Your task to perform on an android device: check battery use Image 0: 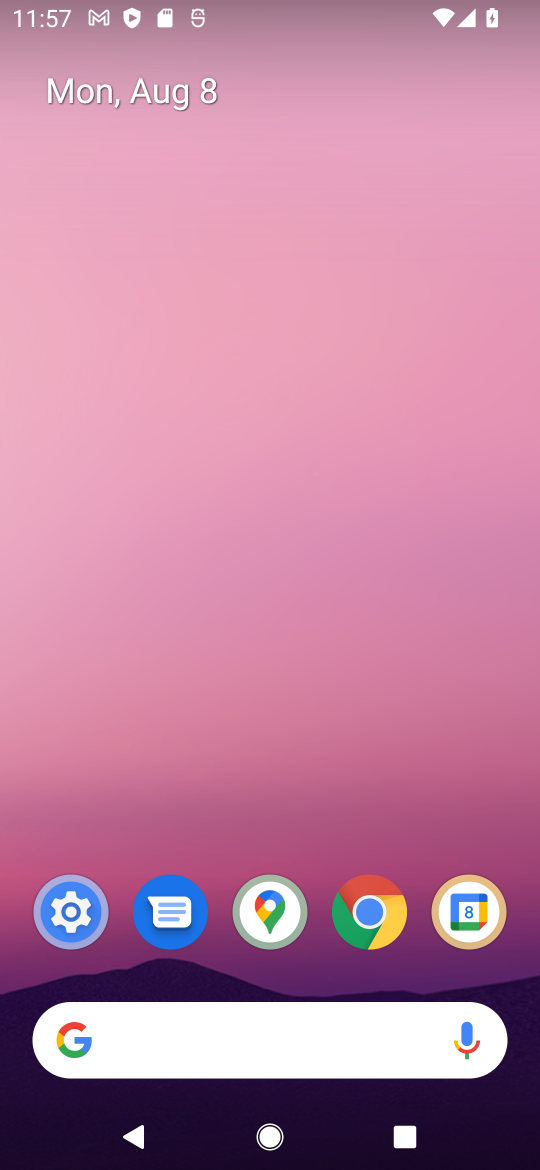
Step 0: click (76, 898)
Your task to perform on an android device: check battery use Image 1: 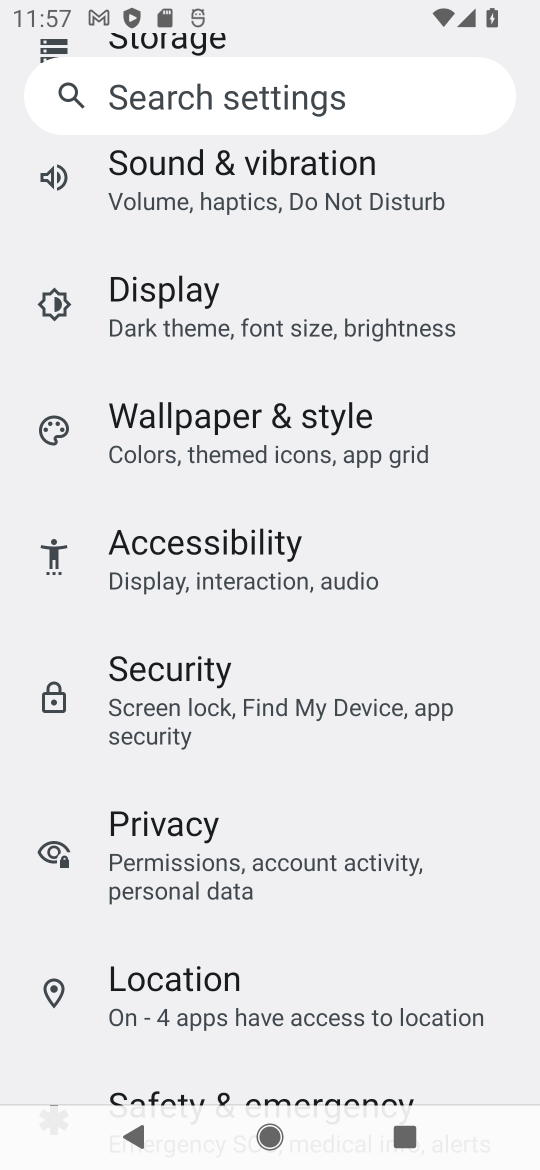
Step 1: drag from (285, 421) to (188, 1030)
Your task to perform on an android device: check battery use Image 2: 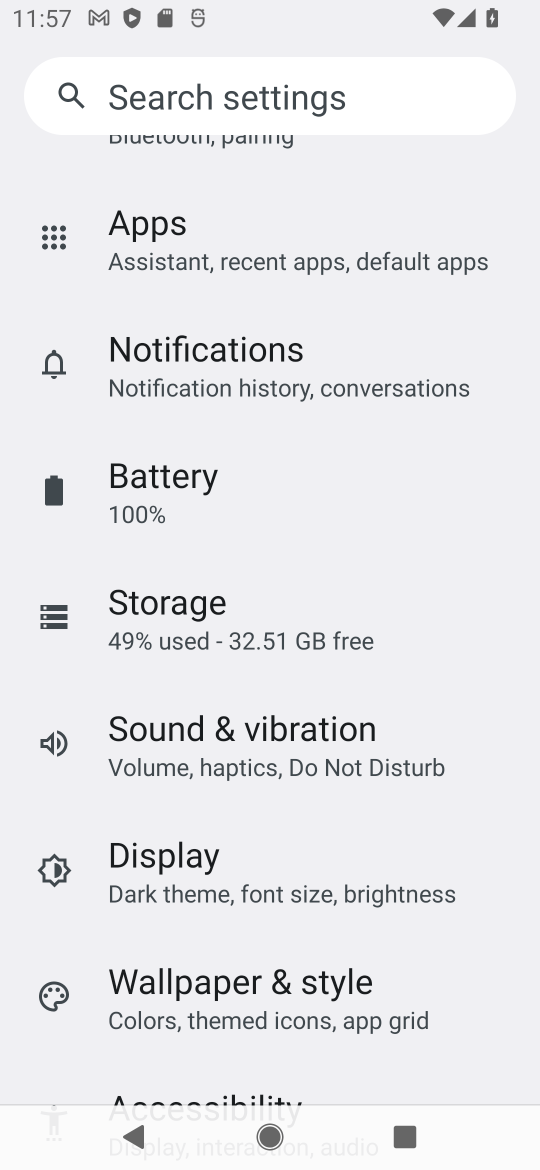
Step 2: click (164, 491)
Your task to perform on an android device: check battery use Image 3: 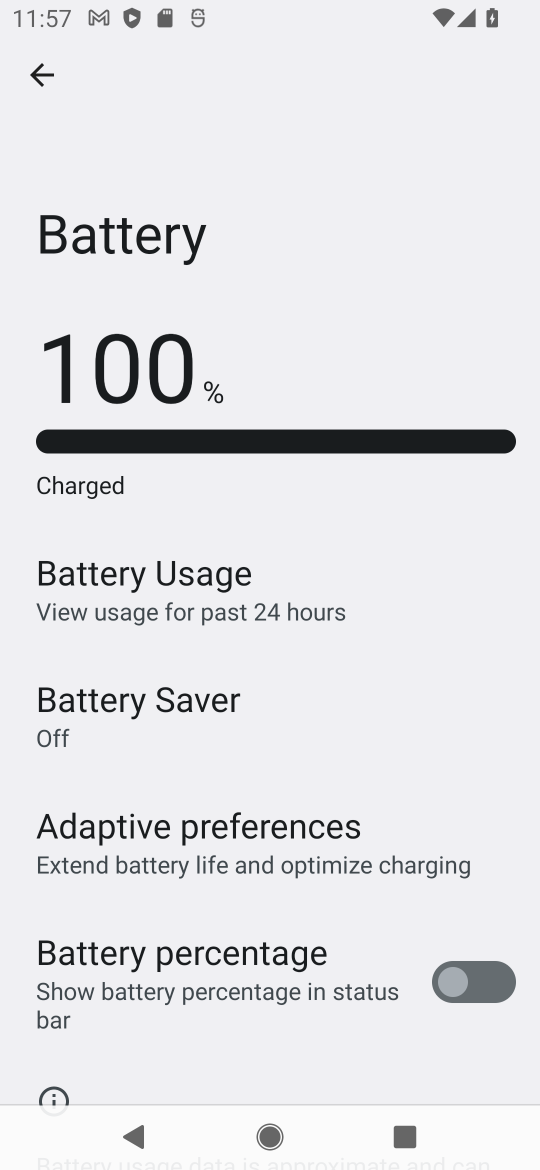
Step 3: click (231, 616)
Your task to perform on an android device: check battery use Image 4: 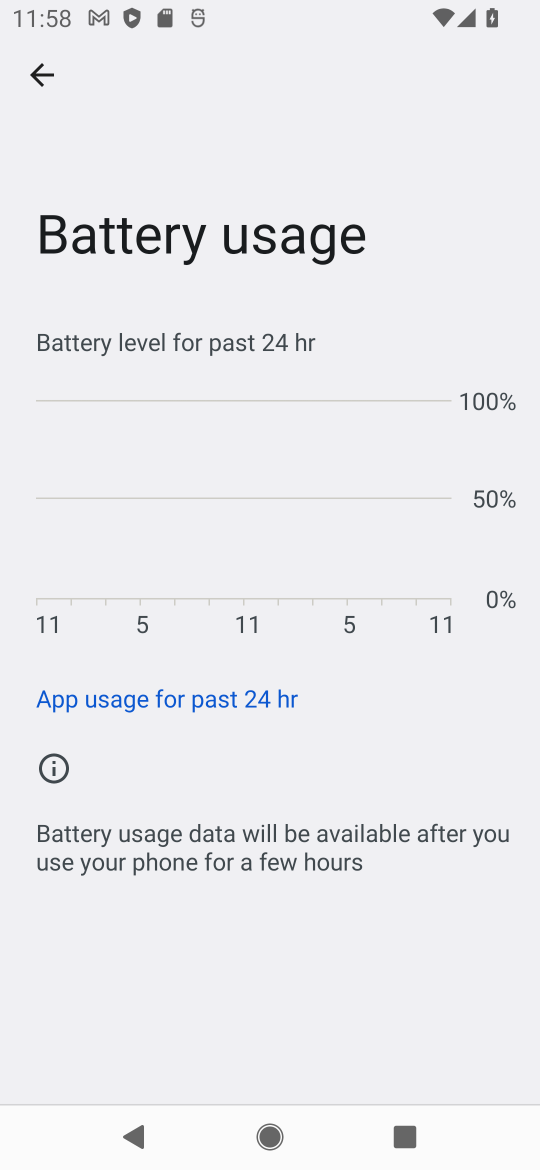
Step 4: task complete